Your task to perform on an android device: Is it going to rain this weekend? Image 0: 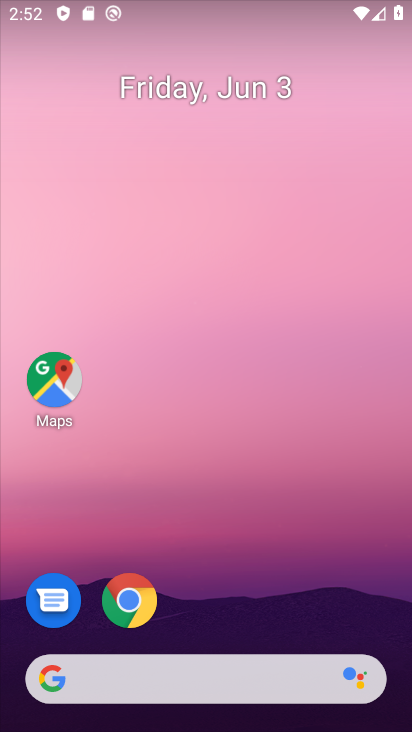
Step 0: drag from (2, 182) to (405, 138)
Your task to perform on an android device: Is it going to rain this weekend? Image 1: 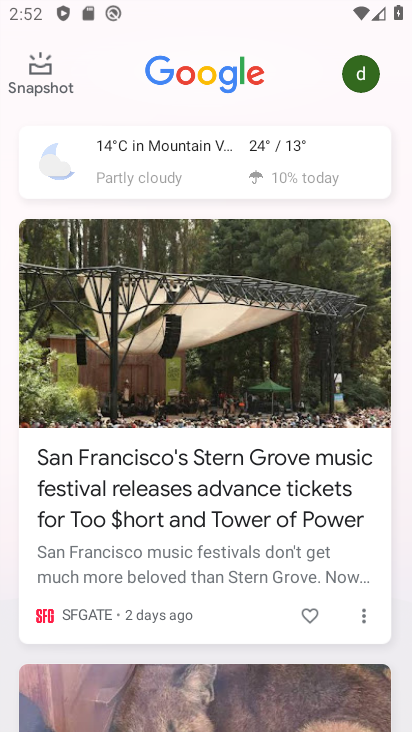
Step 1: click (227, 146)
Your task to perform on an android device: Is it going to rain this weekend? Image 2: 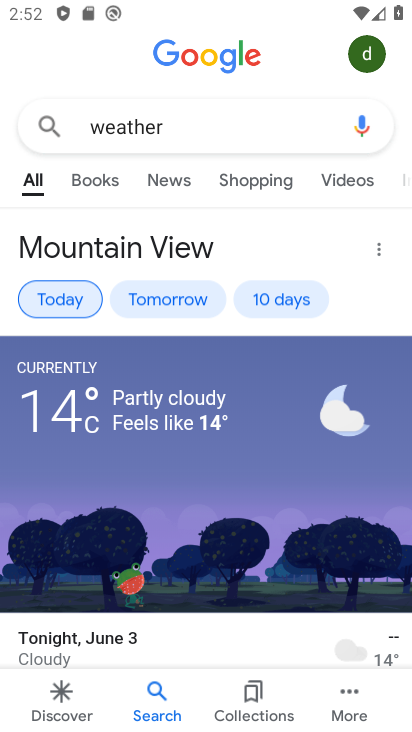
Step 2: click (275, 304)
Your task to perform on an android device: Is it going to rain this weekend? Image 3: 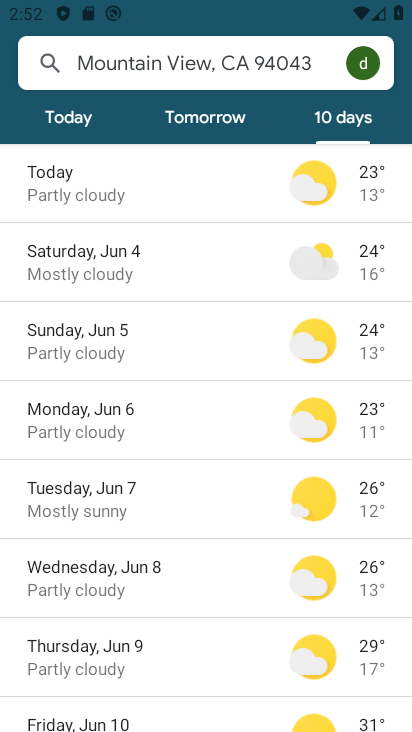
Step 3: task complete